Your task to perform on an android device: open app "Clock" Image 0: 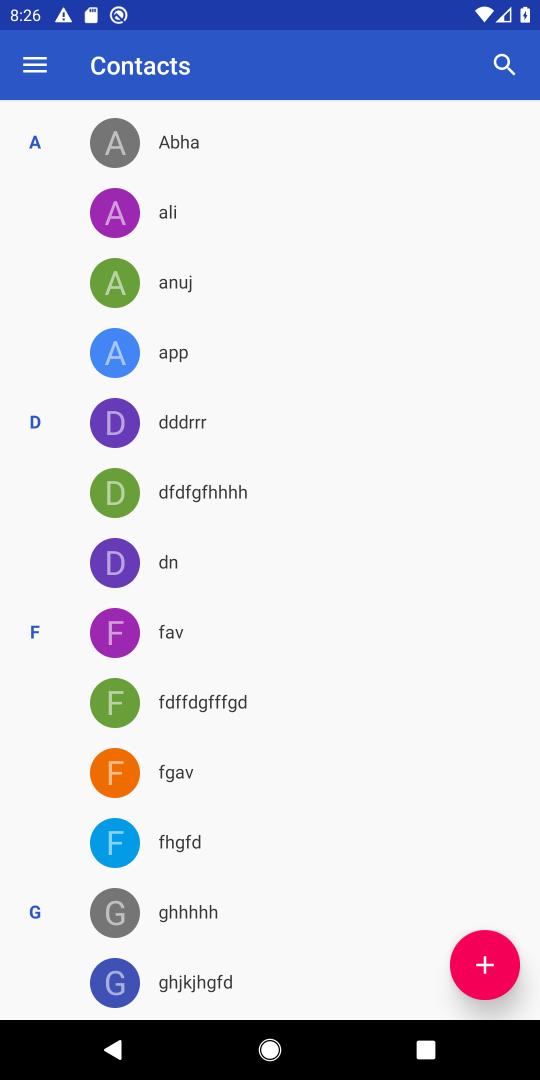
Step 0: press home button
Your task to perform on an android device: open app "Clock" Image 1: 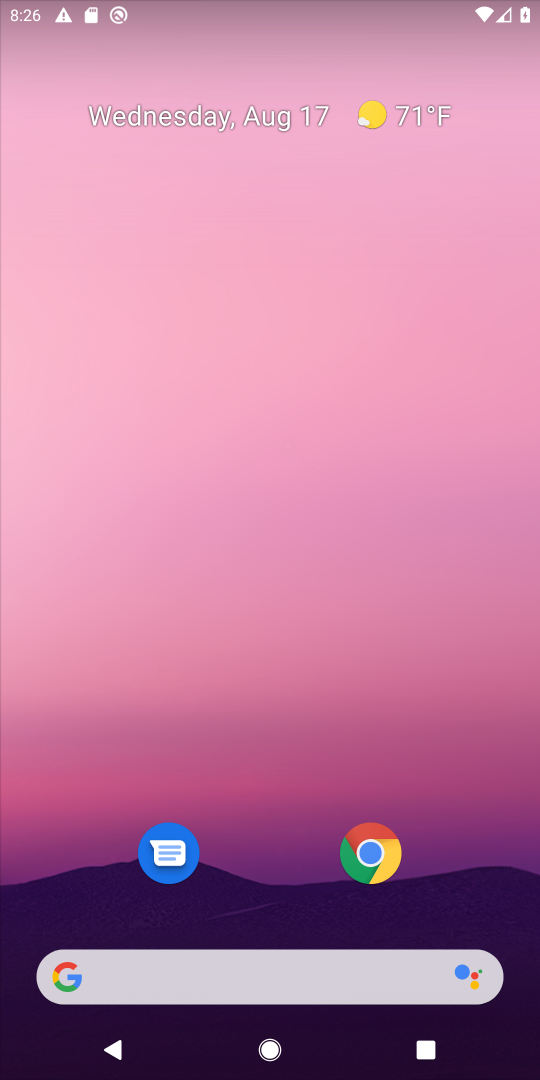
Step 1: drag from (272, 862) to (301, 179)
Your task to perform on an android device: open app "Clock" Image 2: 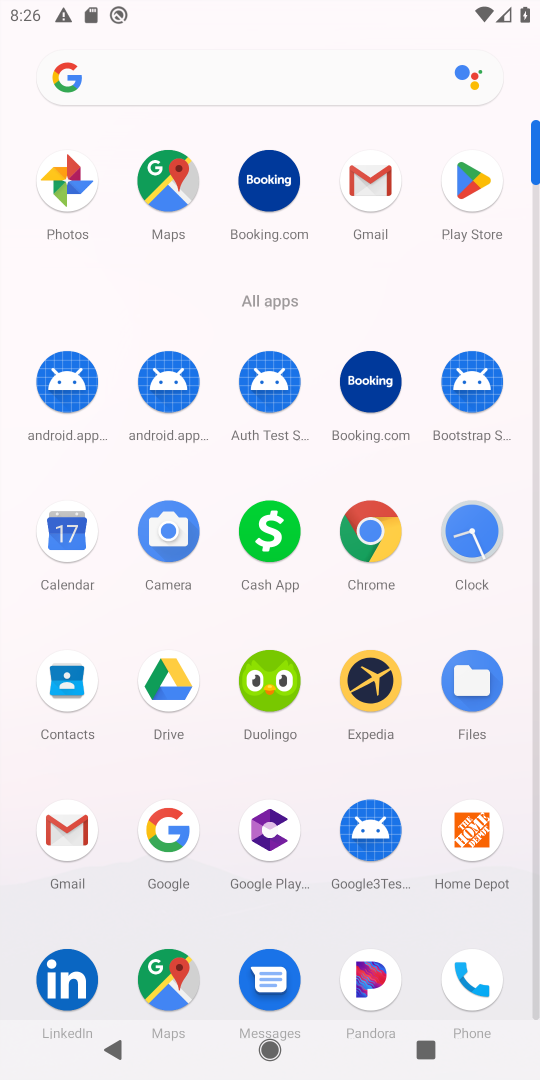
Step 2: click (489, 198)
Your task to perform on an android device: open app "Clock" Image 3: 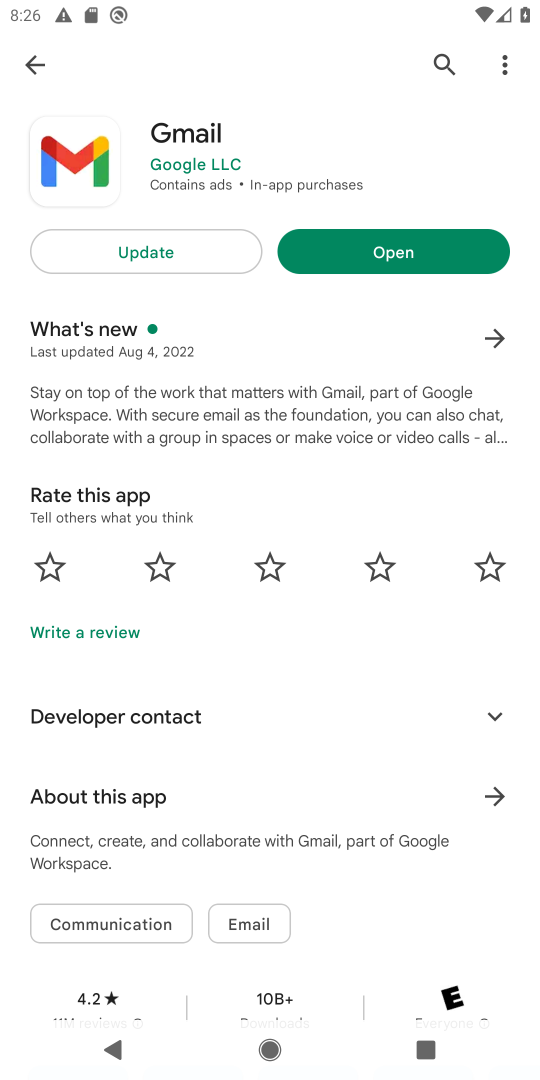
Step 3: click (443, 55)
Your task to perform on an android device: open app "Clock" Image 4: 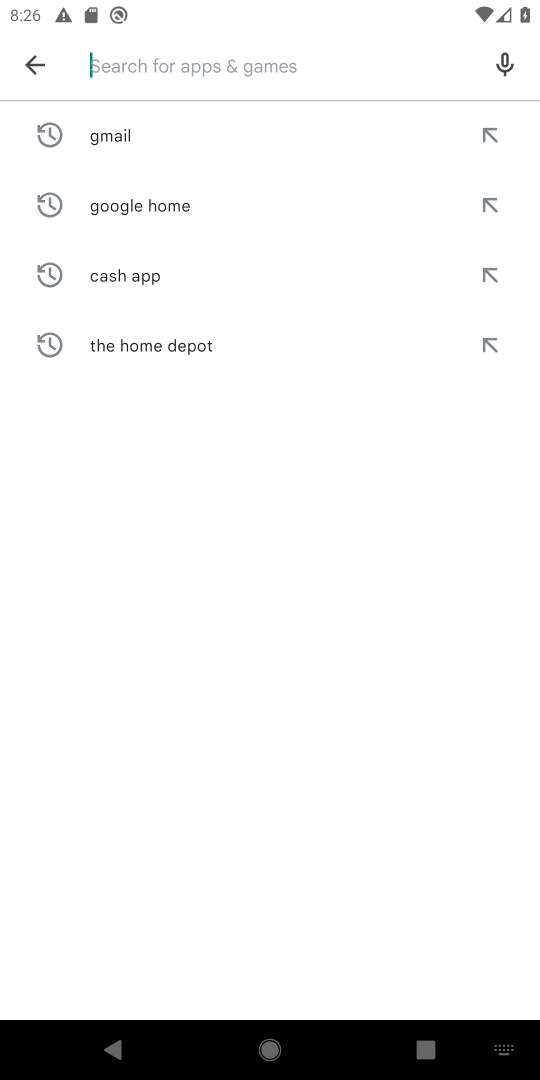
Step 4: type "Clock"
Your task to perform on an android device: open app "Clock" Image 5: 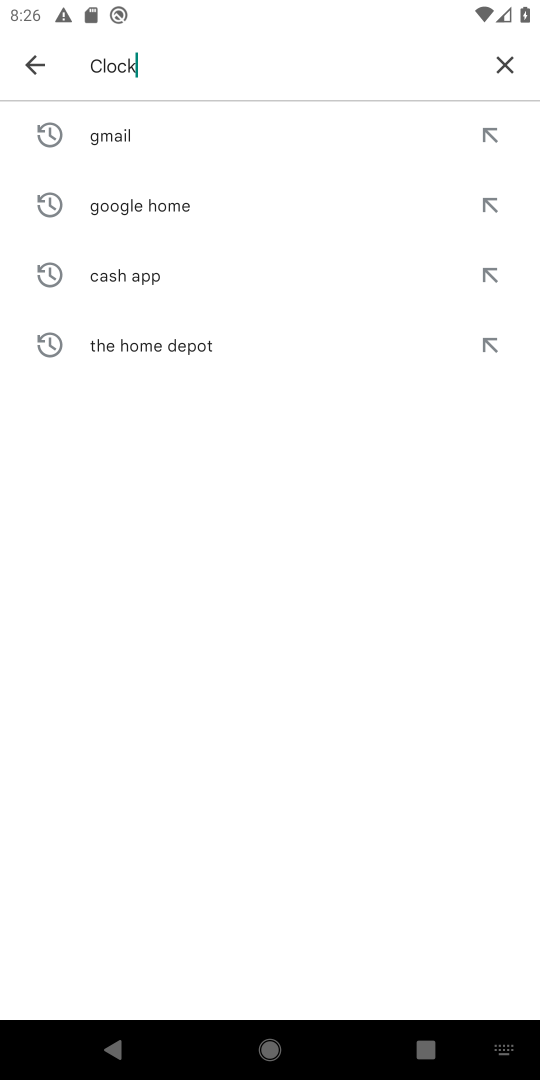
Step 5: type ""
Your task to perform on an android device: open app "Clock" Image 6: 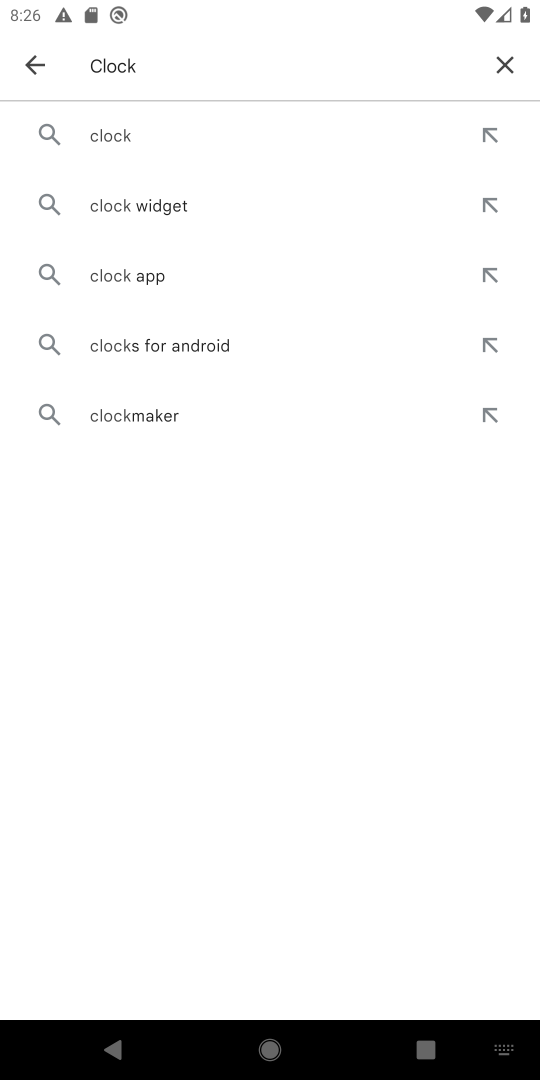
Step 6: click (140, 127)
Your task to perform on an android device: open app "Clock" Image 7: 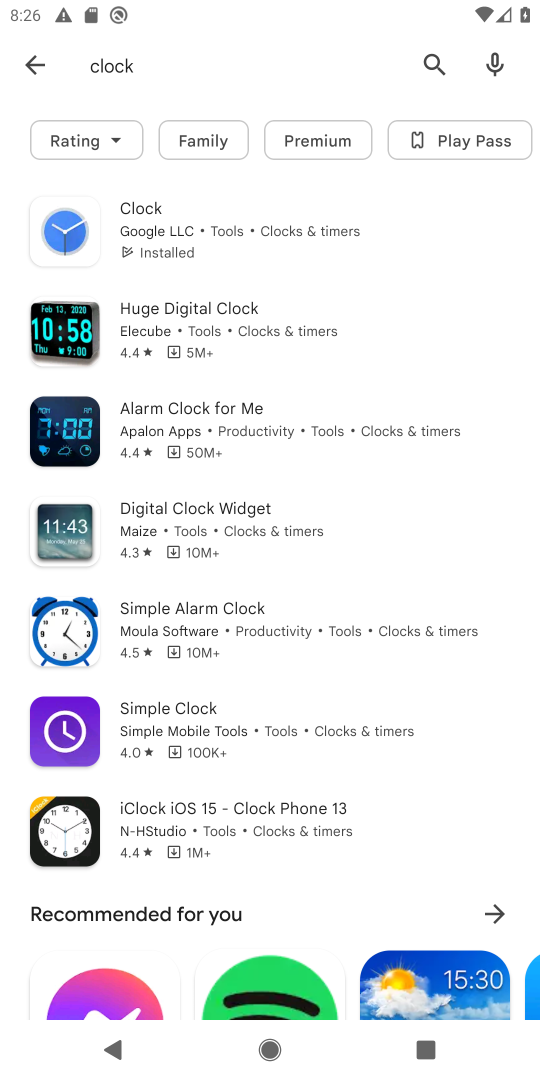
Step 7: click (211, 233)
Your task to perform on an android device: open app "Clock" Image 8: 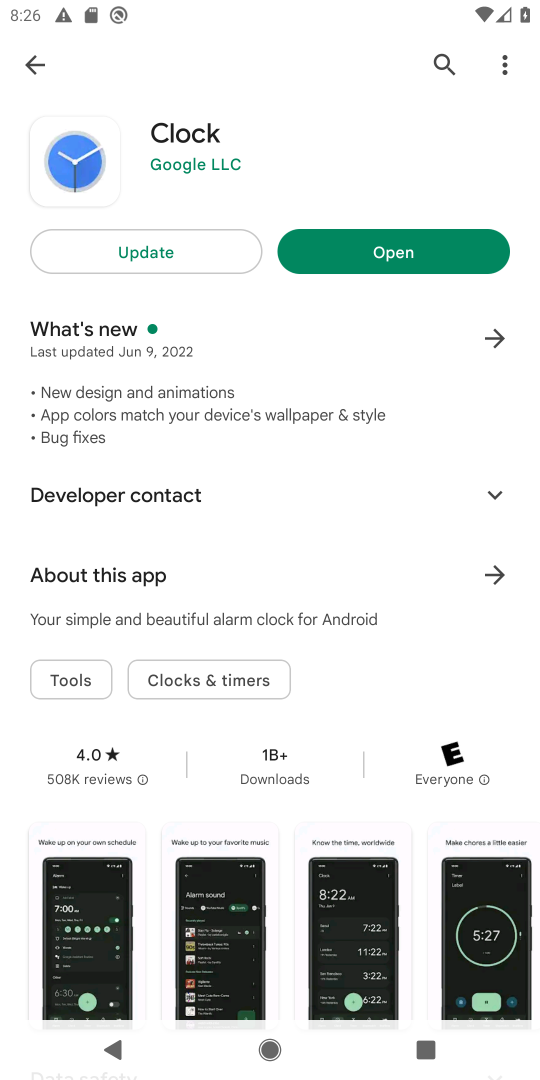
Step 8: click (412, 254)
Your task to perform on an android device: open app "Clock" Image 9: 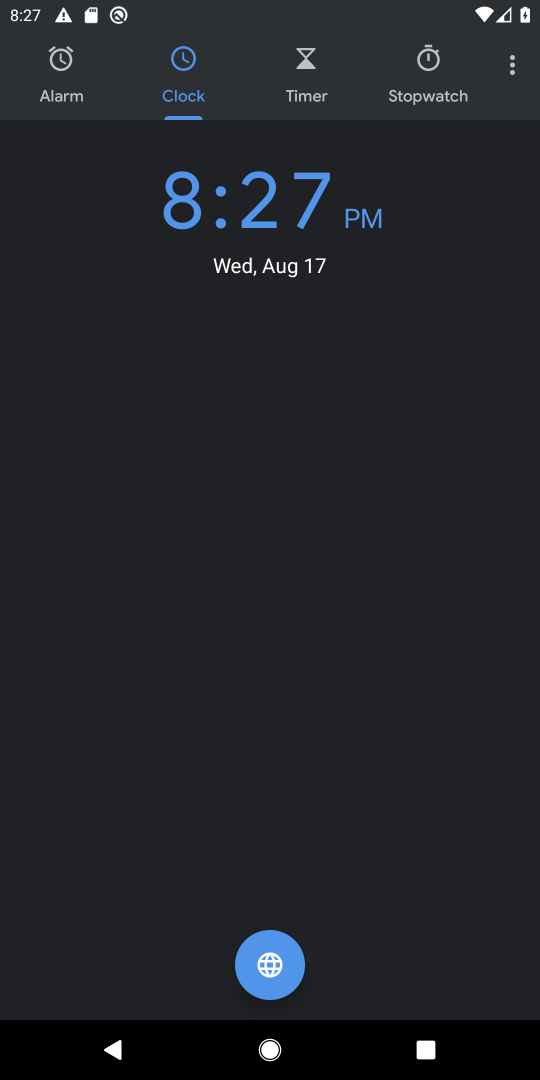
Step 9: task complete